Your task to perform on an android device: Clear the shopping cart on walmart. Search for "dell xps" on walmart, select the first entry, add it to the cart, then select checkout. Image 0: 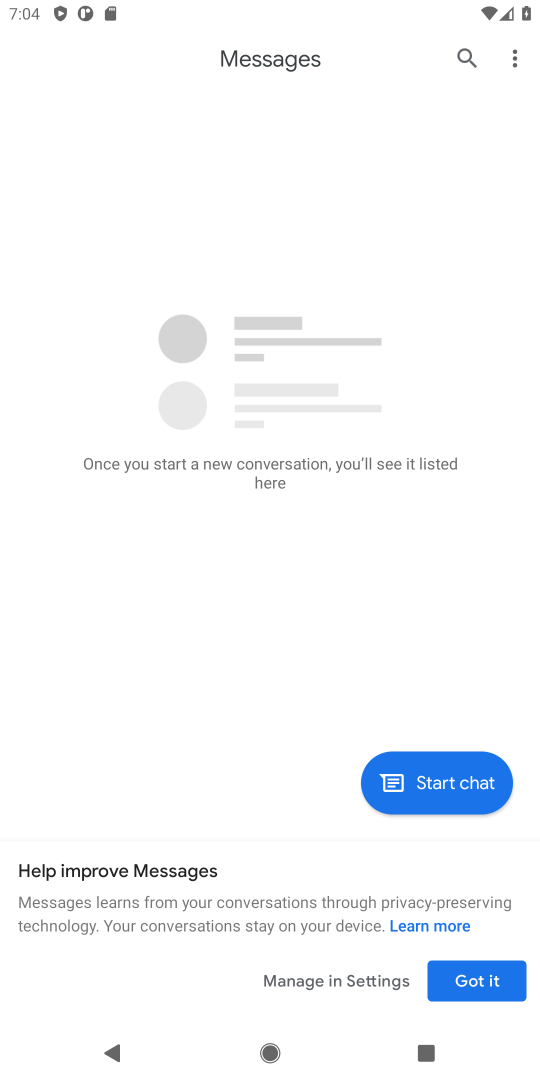
Step 0: press home button
Your task to perform on an android device: Clear the shopping cart on walmart. Search for "dell xps" on walmart, select the first entry, add it to the cart, then select checkout. Image 1: 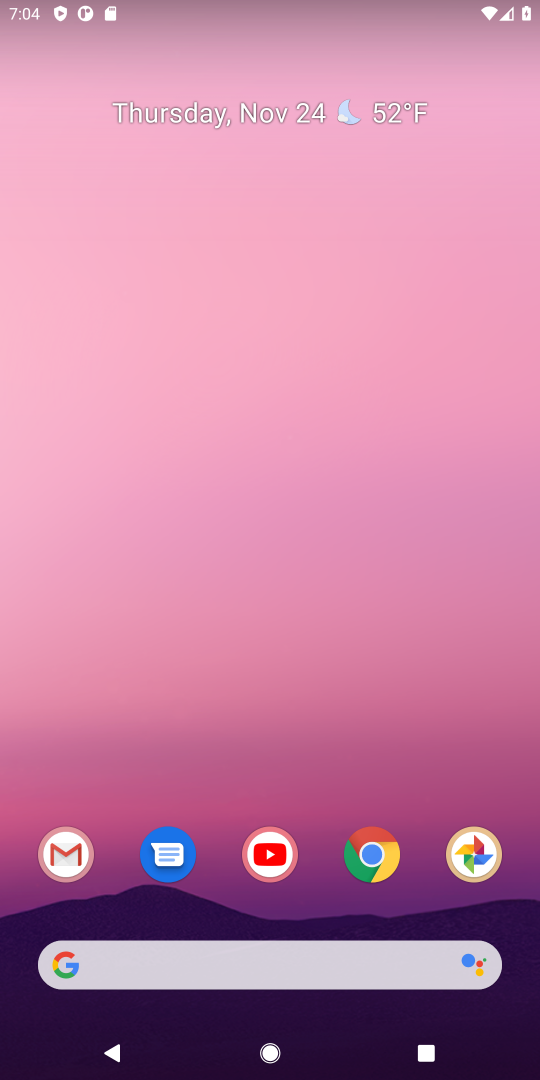
Step 1: click (379, 854)
Your task to perform on an android device: Clear the shopping cart on walmart. Search for "dell xps" on walmart, select the first entry, add it to the cart, then select checkout. Image 2: 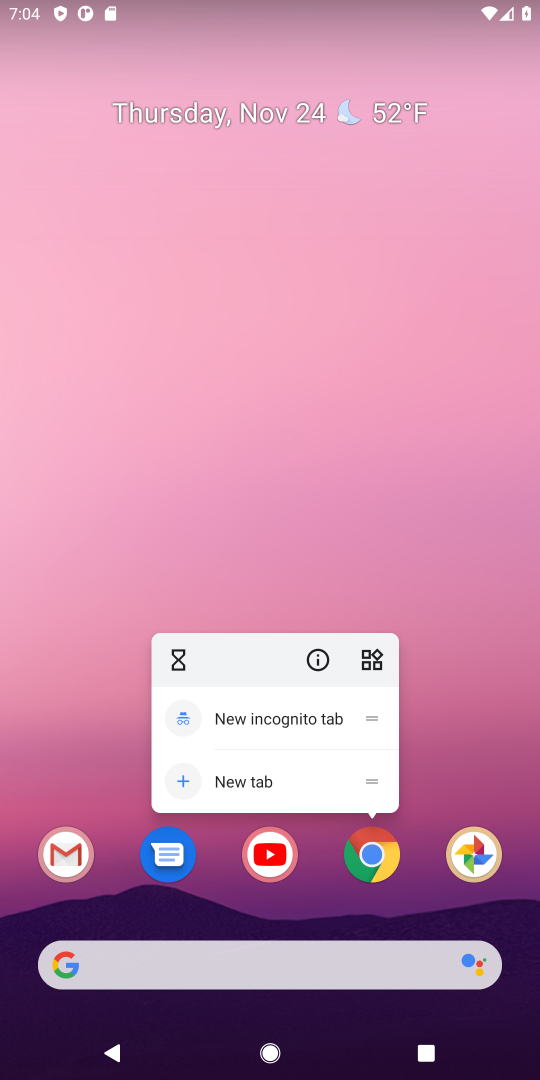
Step 2: click (379, 854)
Your task to perform on an android device: Clear the shopping cart on walmart. Search for "dell xps" on walmart, select the first entry, add it to the cart, then select checkout. Image 3: 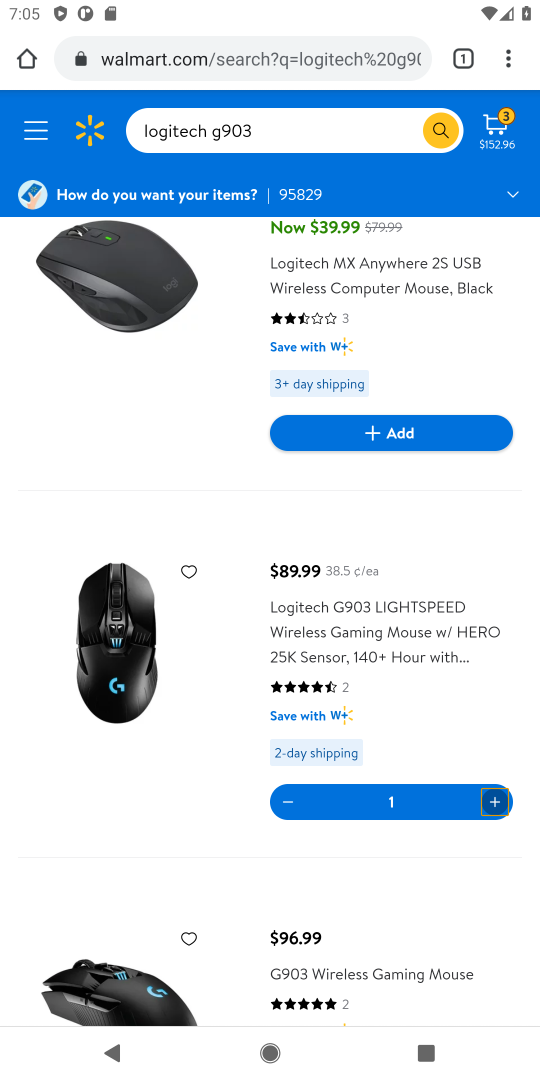
Step 3: click (496, 135)
Your task to perform on an android device: Clear the shopping cart on walmart. Search for "dell xps" on walmart, select the first entry, add it to the cart, then select checkout. Image 4: 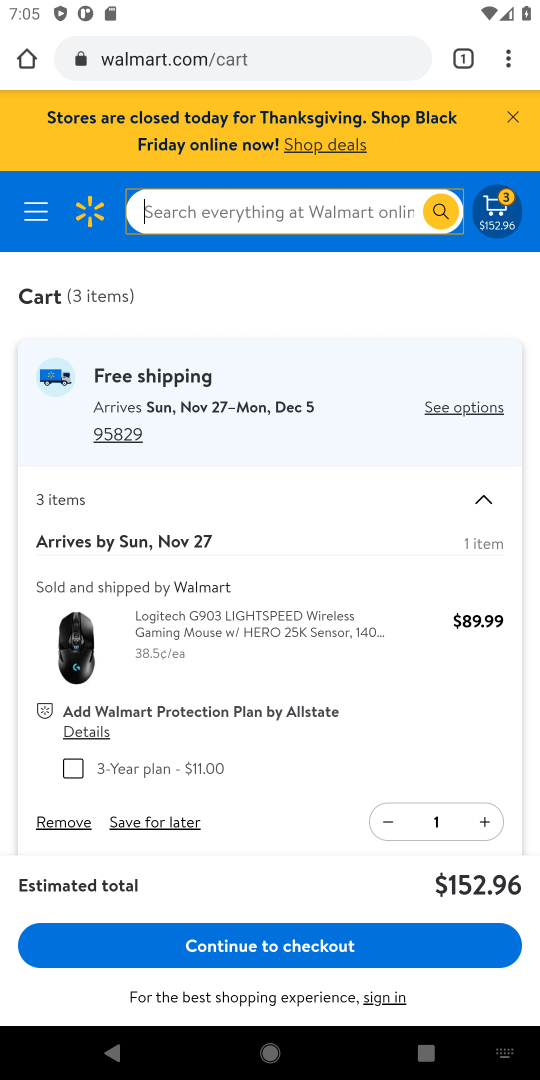
Step 4: click (50, 818)
Your task to perform on an android device: Clear the shopping cart on walmart. Search for "dell xps" on walmart, select the first entry, add it to the cart, then select checkout. Image 5: 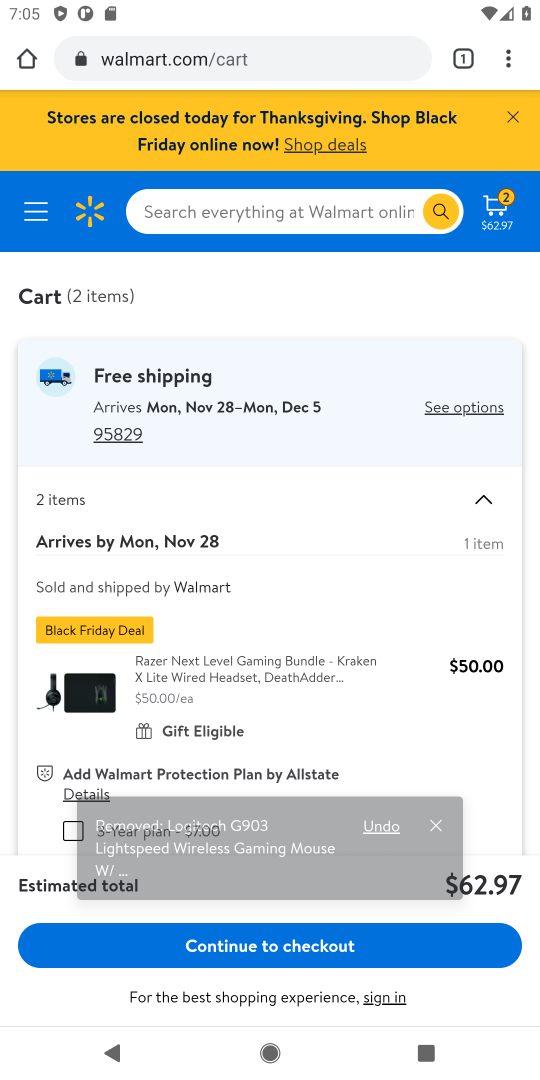
Step 5: drag from (380, 725) to (350, 482)
Your task to perform on an android device: Clear the shopping cart on walmart. Search for "dell xps" on walmart, select the first entry, add it to the cart, then select checkout. Image 6: 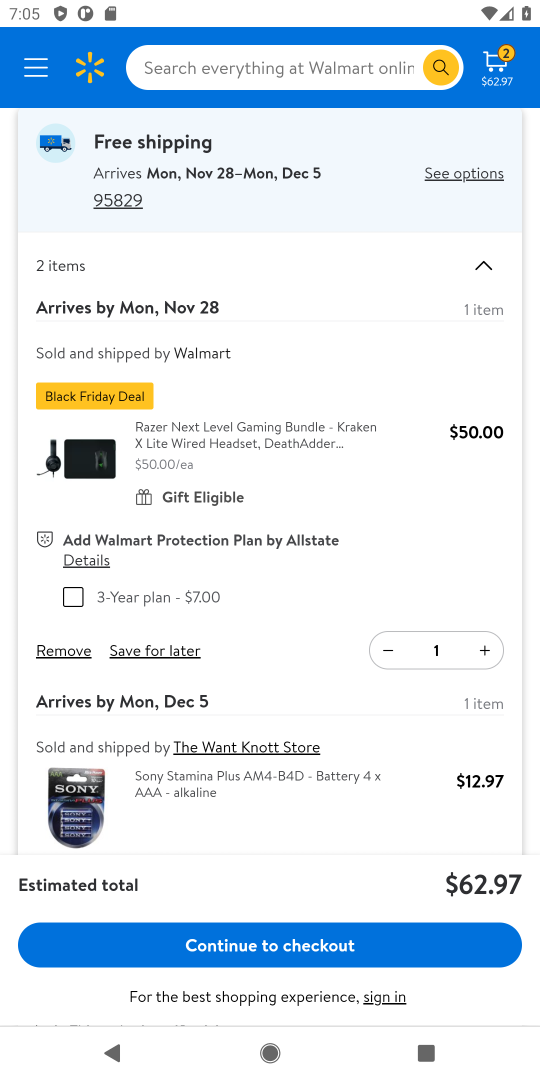
Step 6: click (60, 652)
Your task to perform on an android device: Clear the shopping cart on walmart. Search for "dell xps" on walmart, select the first entry, add it to the cart, then select checkout. Image 7: 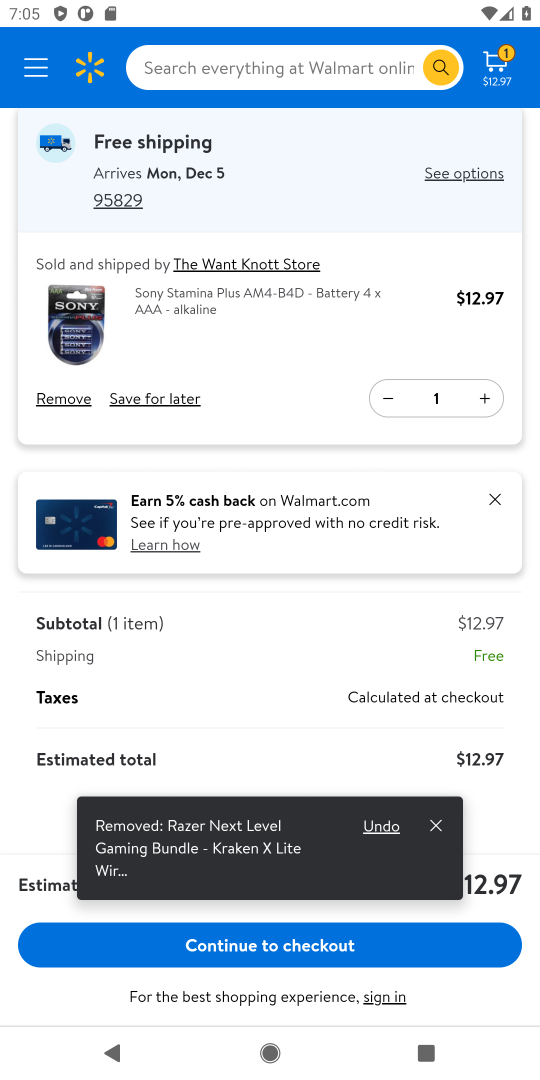
Step 7: click (64, 406)
Your task to perform on an android device: Clear the shopping cart on walmart. Search for "dell xps" on walmart, select the first entry, add it to the cart, then select checkout. Image 8: 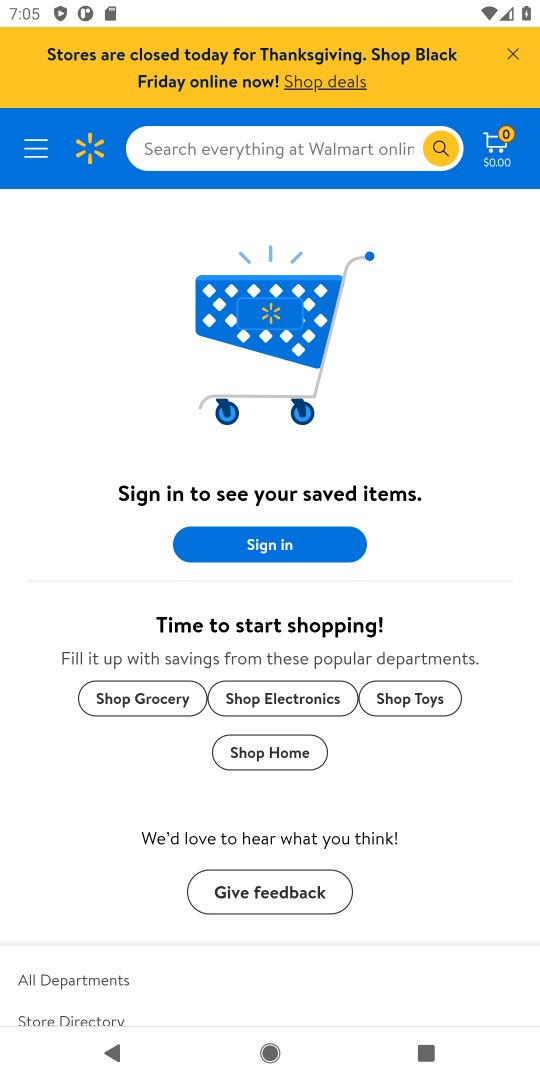
Step 8: click (192, 149)
Your task to perform on an android device: Clear the shopping cart on walmart. Search for "dell xps" on walmart, select the first entry, add it to the cart, then select checkout. Image 9: 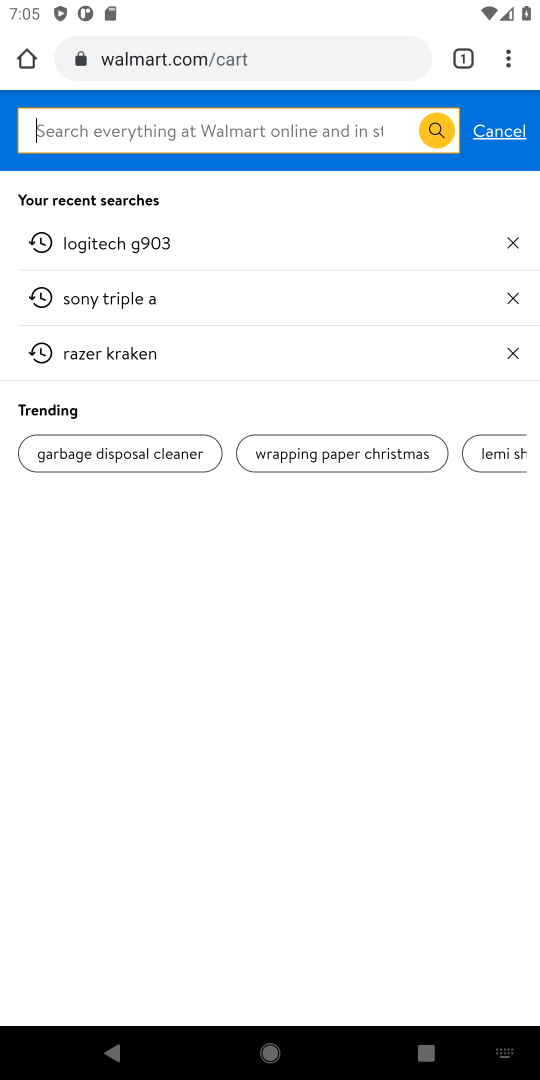
Step 9: type "dell xps"
Your task to perform on an android device: Clear the shopping cart on walmart. Search for "dell xps" on walmart, select the first entry, add it to the cart, then select checkout. Image 10: 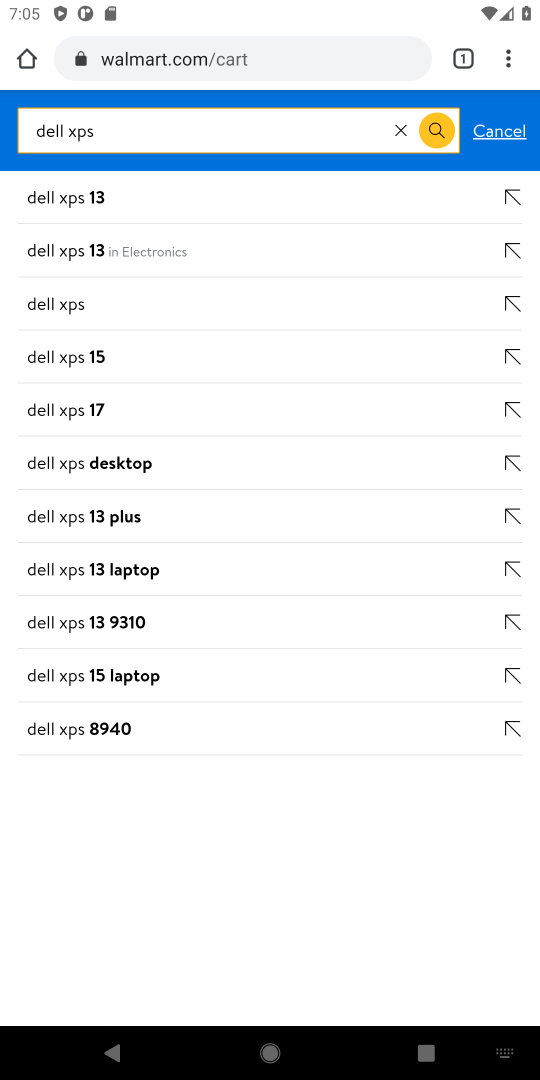
Step 10: click (72, 209)
Your task to perform on an android device: Clear the shopping cart on walmart. Search for "dell xps" on walmart, select the first entry, add it to the cart, then select checkout. Image 11: 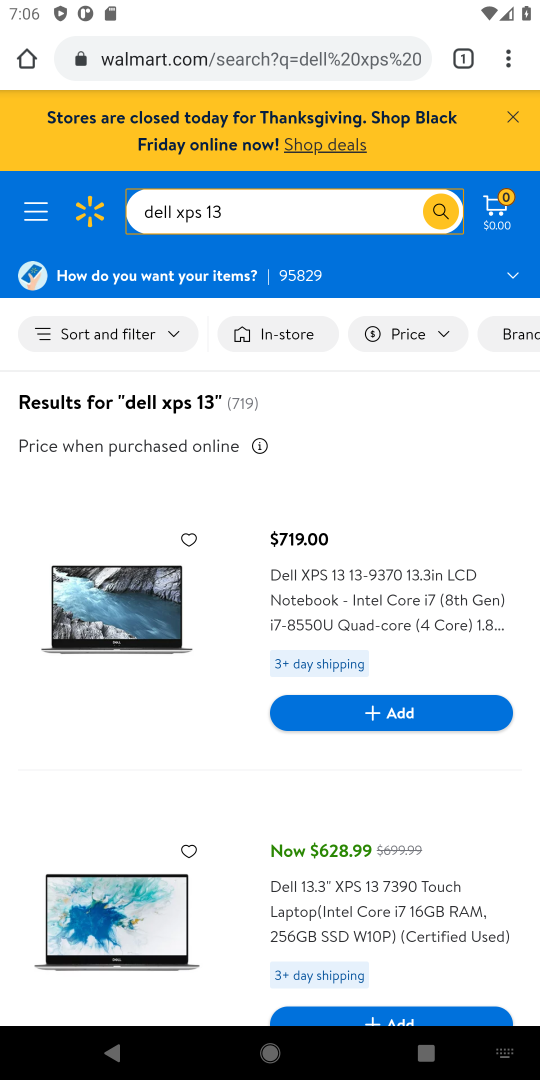
Step 11: click (387, 714)
Your task to perform on an android device: Clear the shopping cart on walmart. Search for "dell xps" on walmart, select the first entry, add it to the cart, then select checkout. Image 12: 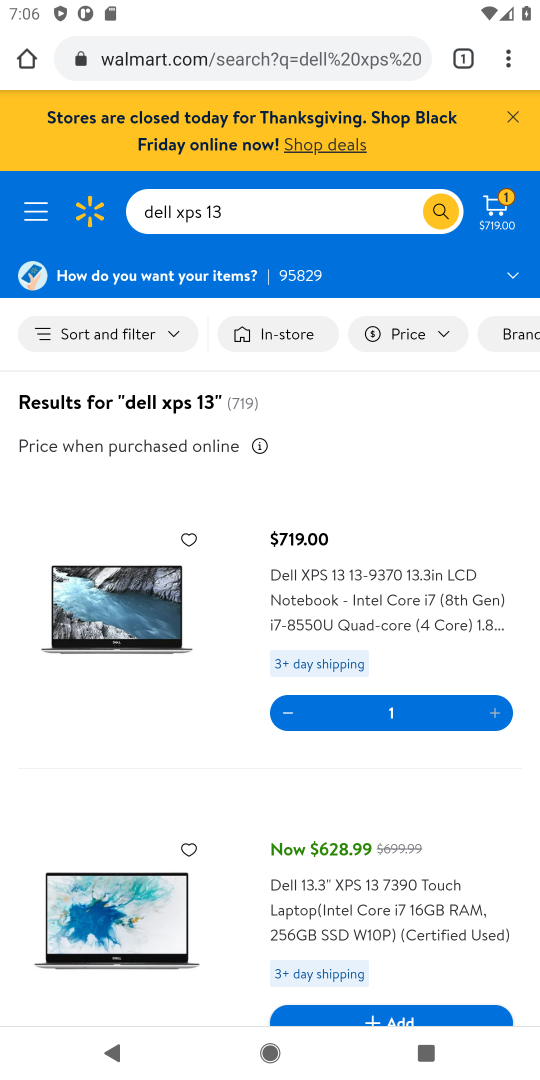
Step 12: click (505, 205)
Your task to perform on an android device: Clear the shopping cart on walmart. Search for "dell xps" on walmart, select the first entry, add it to the cart, then select checkout. Image 13: 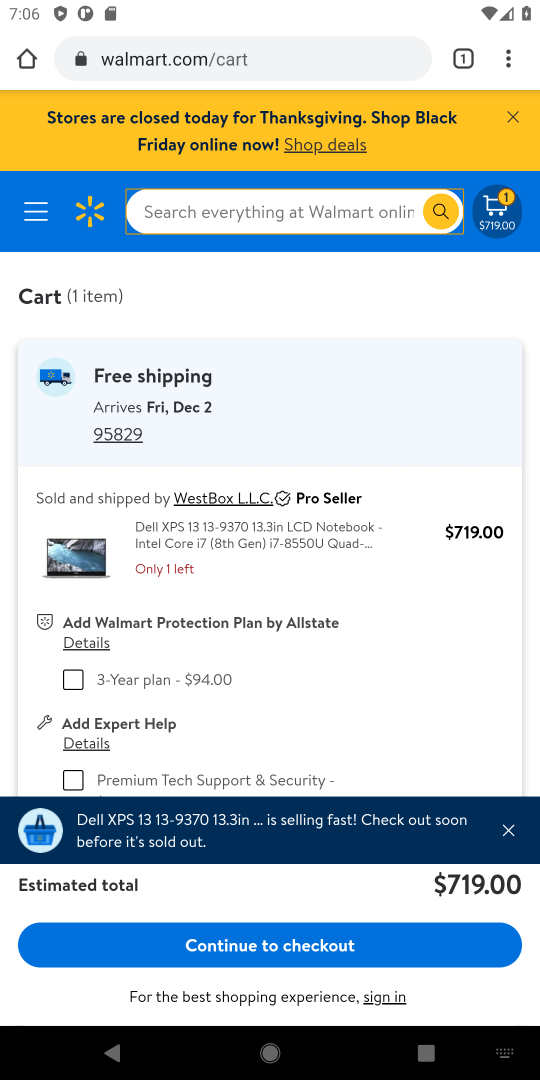
Step 13: click (275, 934)
Your task to perform on an android device: Clear the shopping cart on walmart. Search for "dell xps" on walmart, select the first entry, add it to the cart, then select checkout. Image 14: 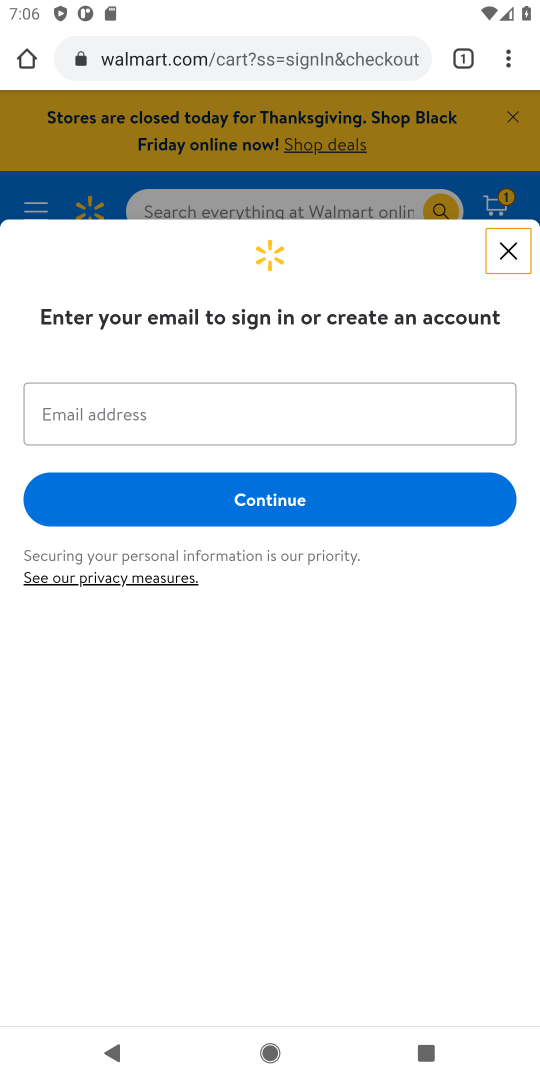
Step 14: task complete